Your task to perform on an android device: Go to display settings Image 0: 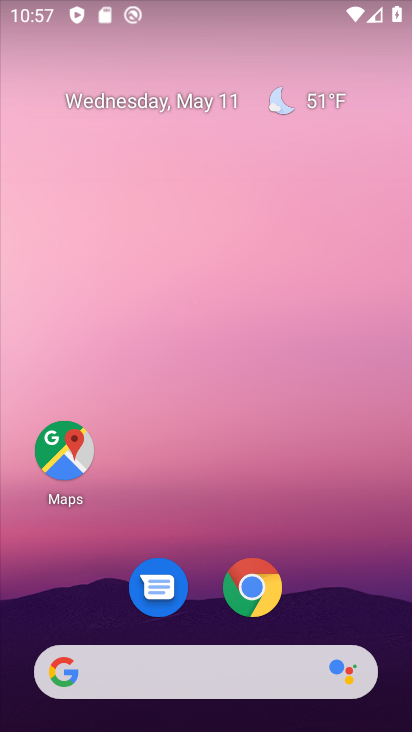
Step 0: drag from (207, 607) to (316, 49)
Your task to perform on an android device: Go to display settings Image 1: 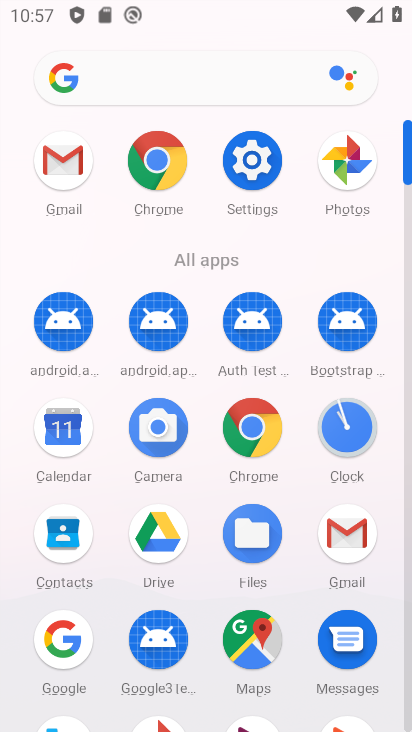
Step 1: click (261, 145)
Your task to perform on an android device: Go to display settings Image 2: 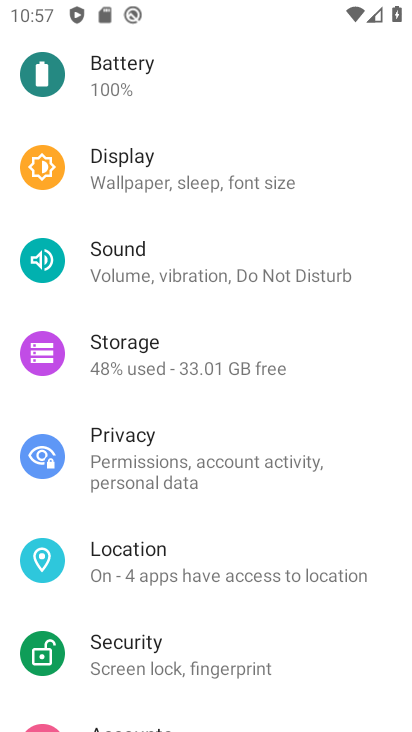
Step 2: click (164, 175)
Your task to perform on an android device: Go to display settings Image 3: 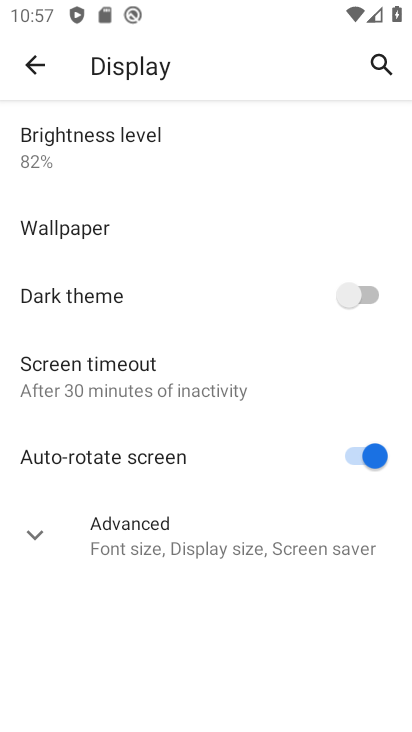
Step 3: task complete